Your task to perform on an android device: open chrome privacy settings Image 0: 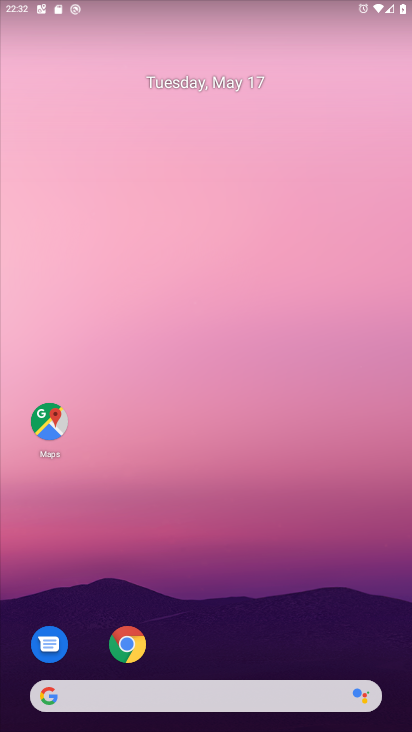
Step 0: drag from (201, 654) to (214, 7)
Your task to perform on an android device: open chrome privacy settings Image 1: 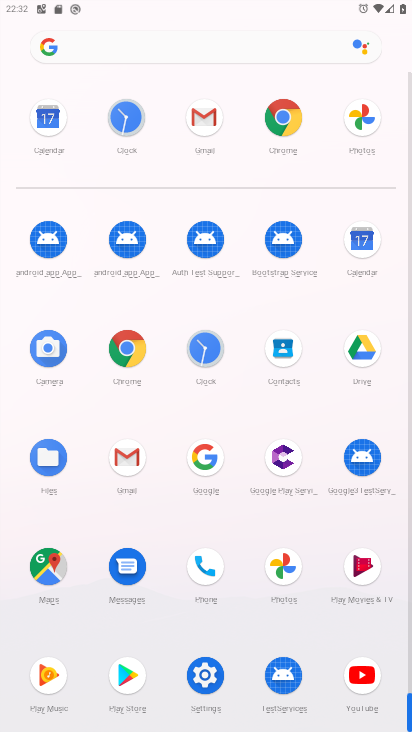
Step 1: click (290, 120)
Your task to perform on an android device: open chrome privacy settings Image 2: 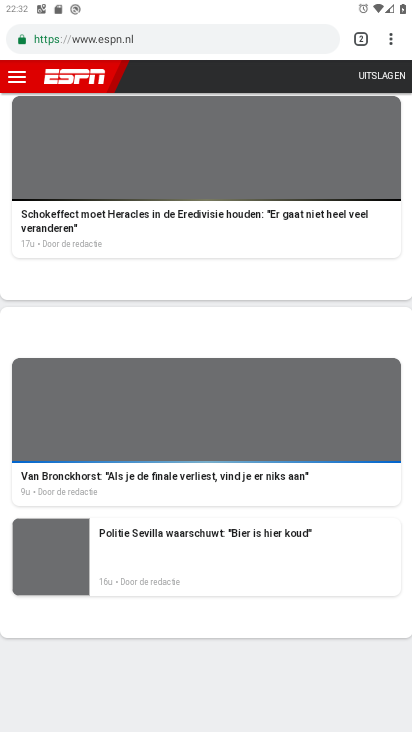
Step 2: click (396, 37)
Your task to perform on an android device: open chrome privacy settings Image 3: 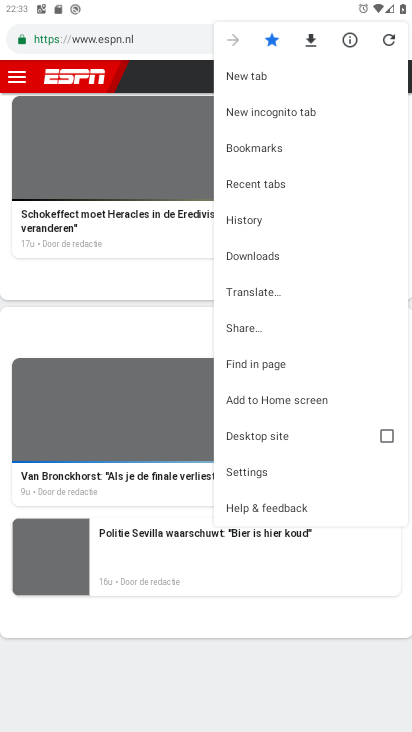
Step 3: click (276, 463)
Your task to perform on an android device: open chrome privacy settings Image 4: 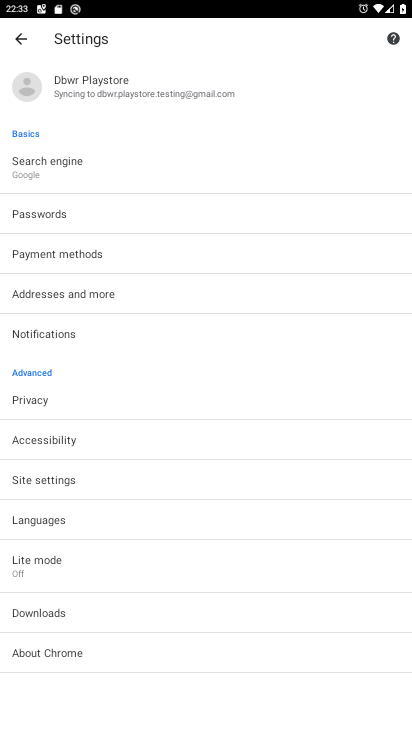
Step 4: click (68, 395)
Your task to perform on an android device: open chrome privacy settings Image 5: 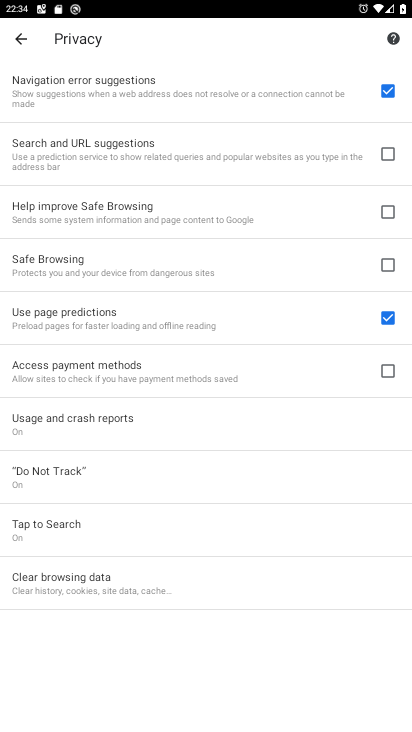
Step 5: task complete